Your task to perform on an android device: open app "Instagram" (install if not already installed), go to login, and select forgot password Image 0: 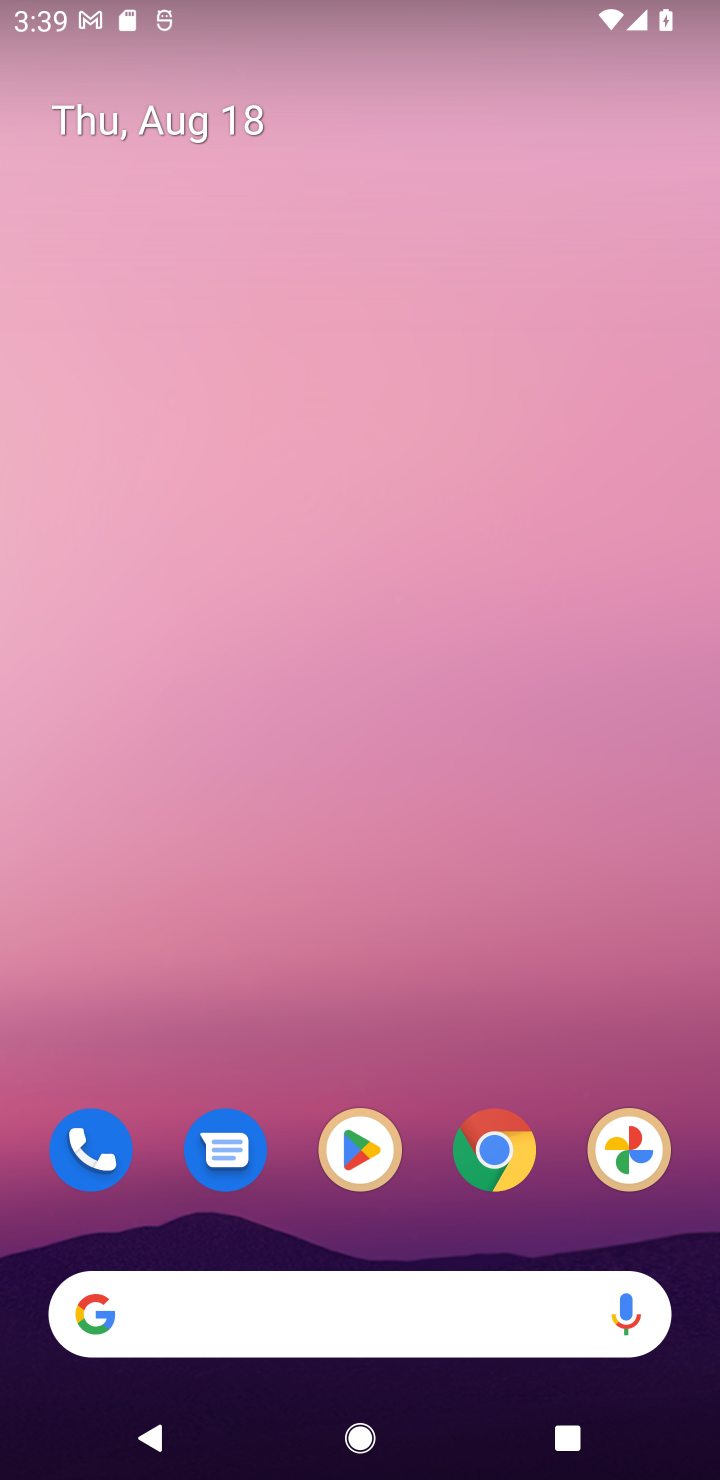
Step 0: click (362, 1145)
Your task to perform on an android device: open app "Instagram" (install if not already installed), go to login, and select forgot password Image 1: 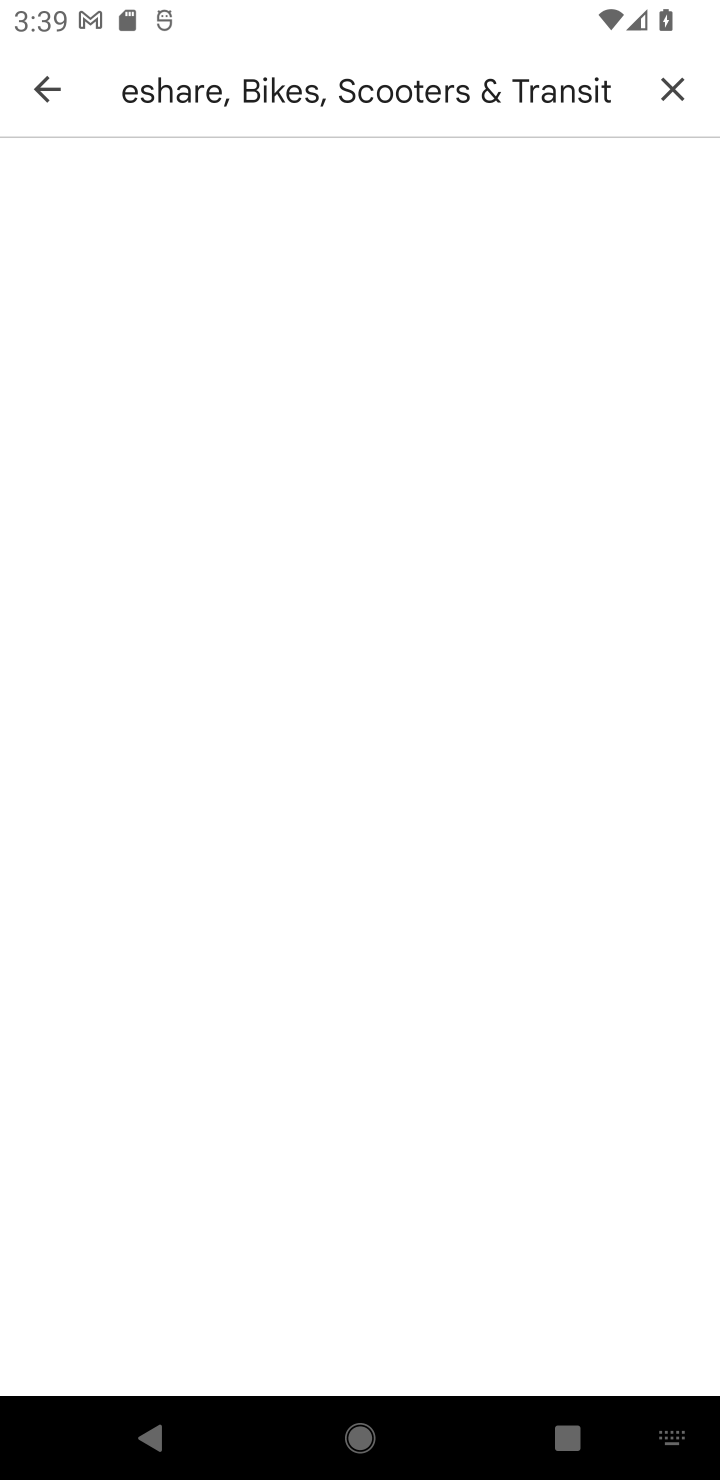
Step 1: click (670, 85)
Your task to perform on an android device: open app "Instagram" (install if not already installed), go to login, and select forgot password Image 2: 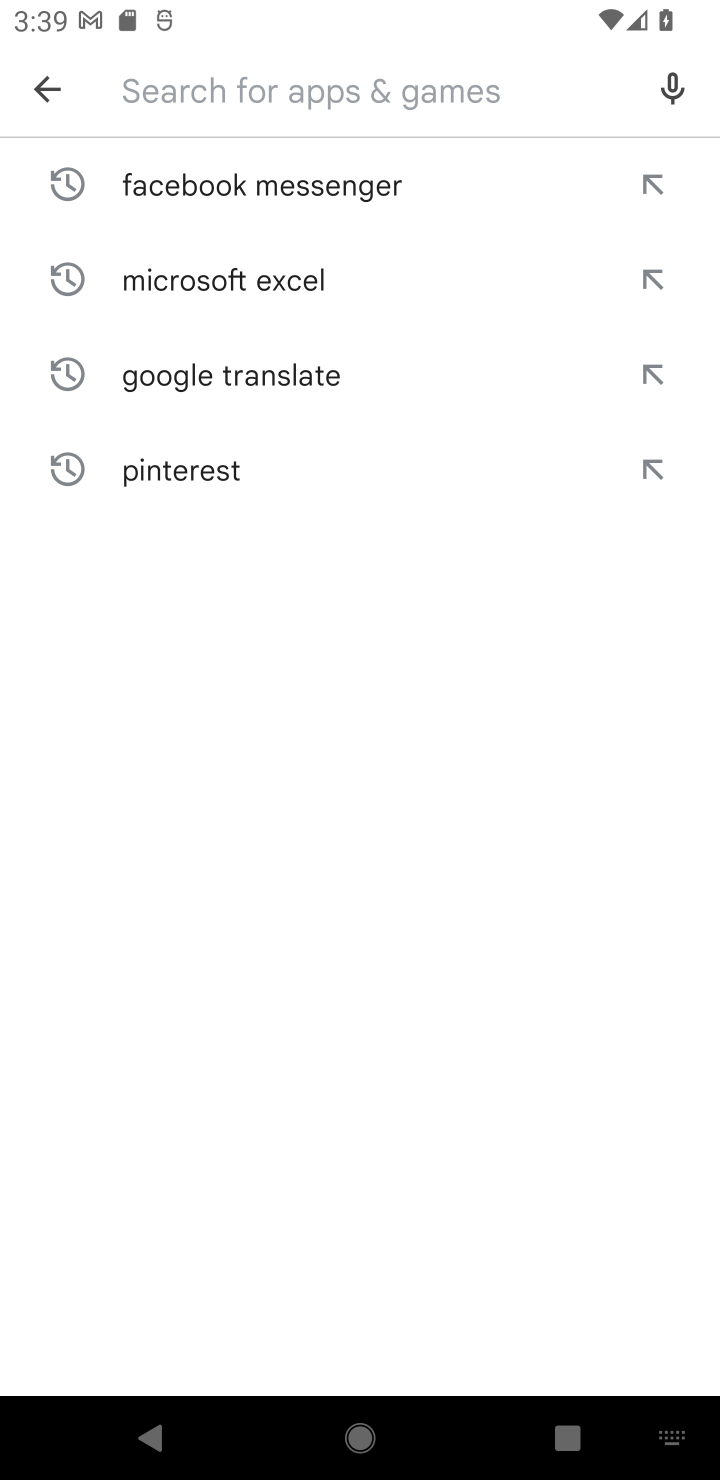
Step 2: type "Instagram"
Your task to perform on an android device: open app "Instagram" (install if not already installed), go to login, and select forgot password Image 3: 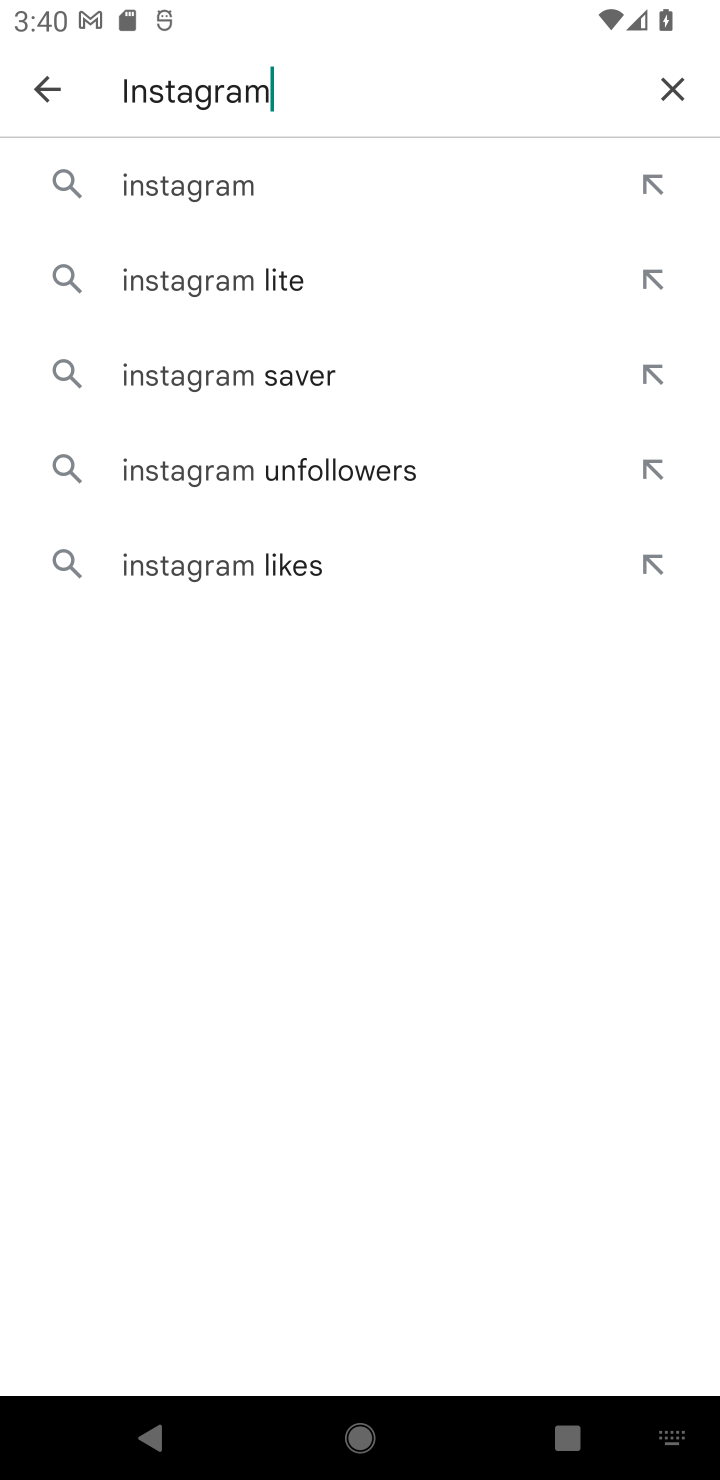
Step 3: click (198, 176)
Your task to perform on an android device: open app "Instagram" (install if not already installed), go to login, and select forgot password Image 4: 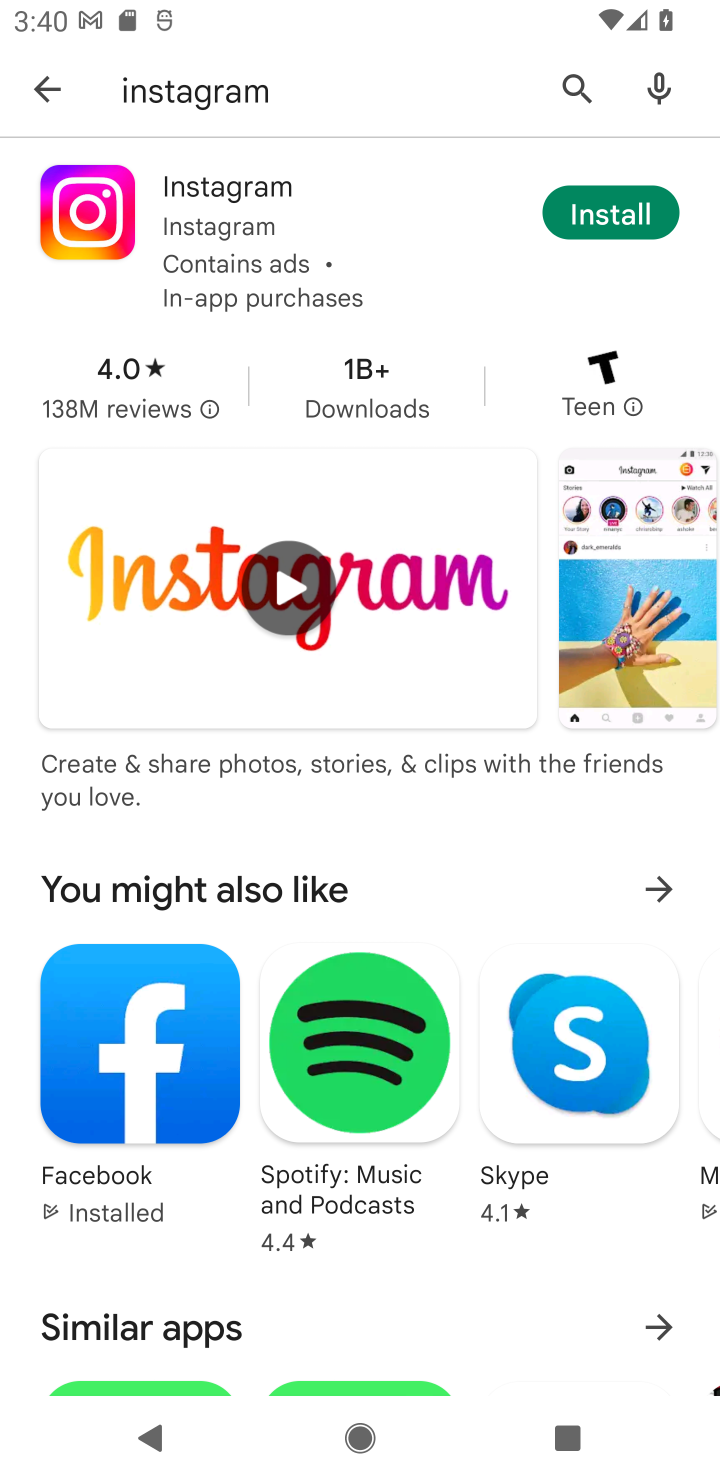
Step 4: click (614, 211)
Your task to perform on an android device: open app "Instagram" (install if not already installed), go to login, and select forgot password Image 5: 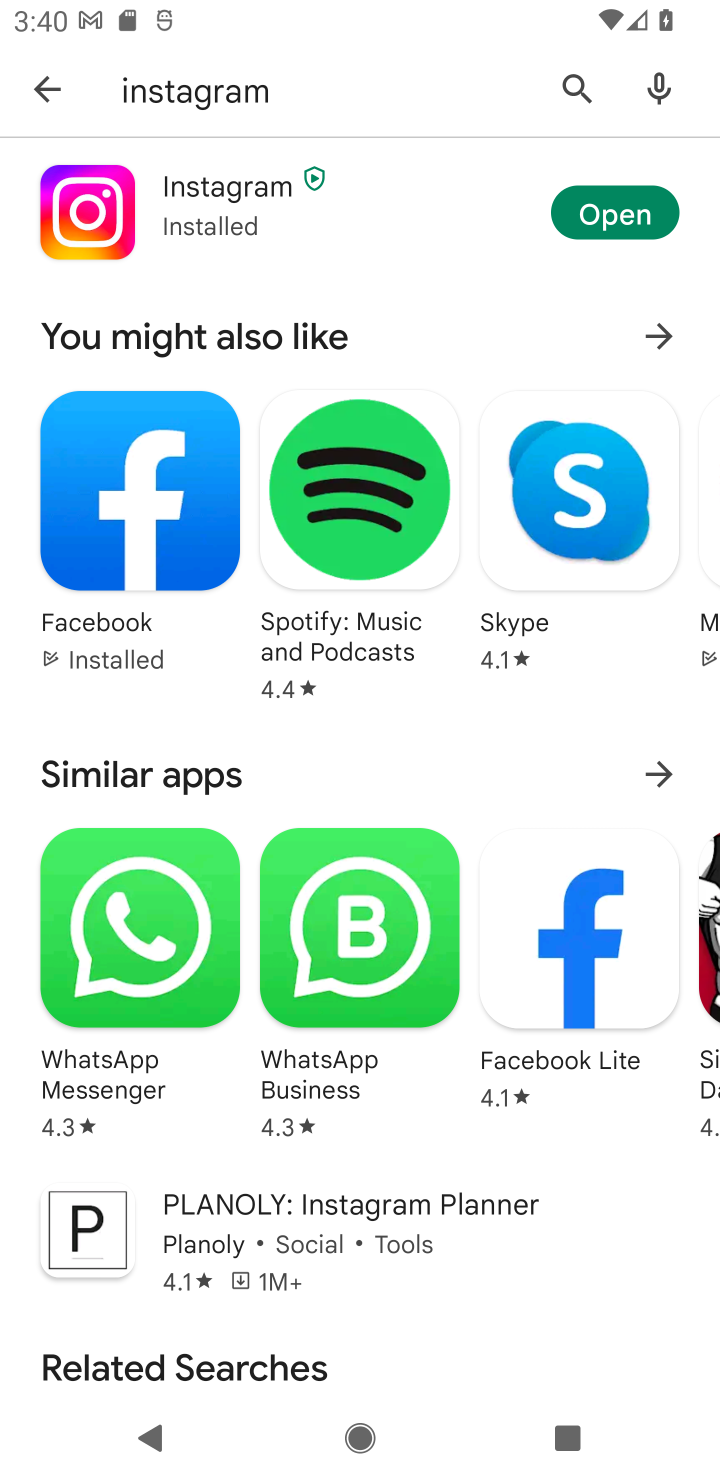
Step 5: click (597, 205)
Your task to perform on an android device: open app "Instagram" (install if not already installed), go to login, and select forgot password Image 6: 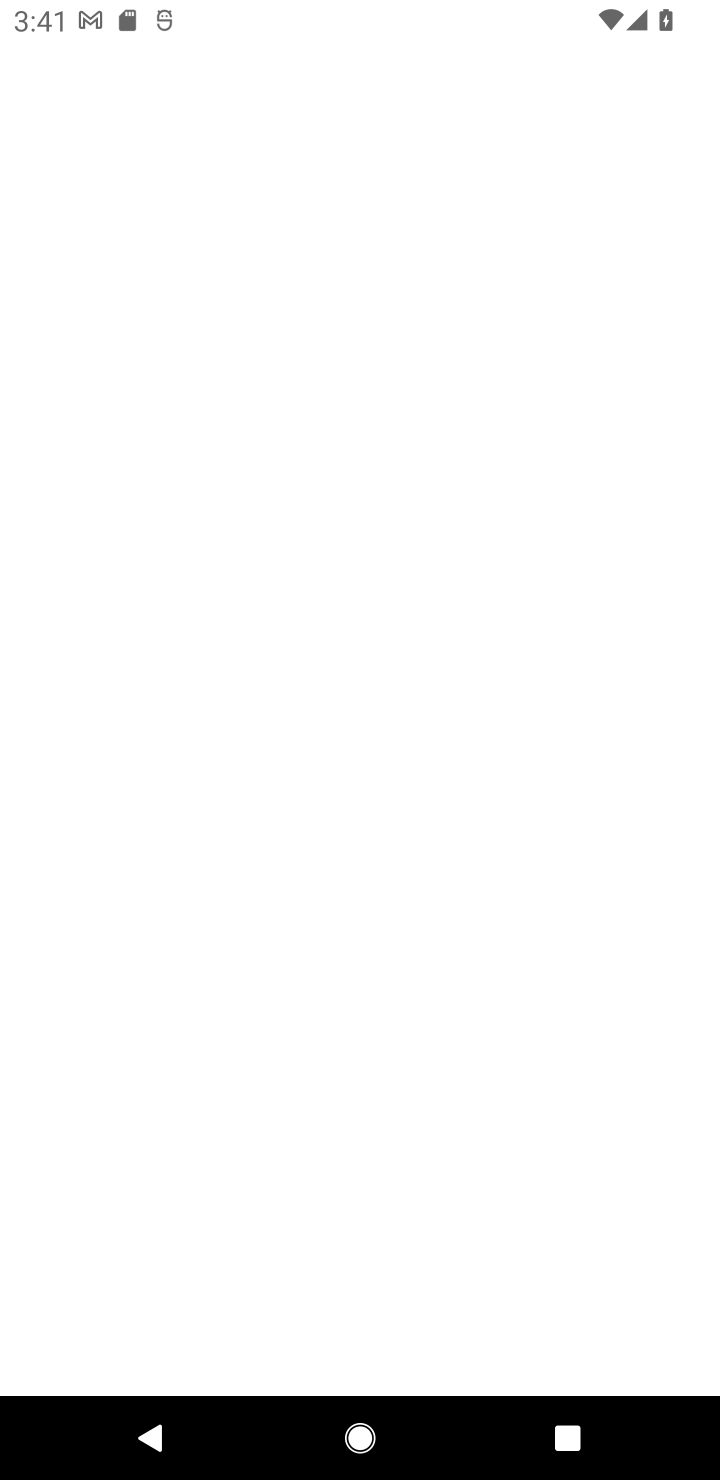
Step 6: drag from (252, 464) to (315, 1016)
Your task to perform on an android device: open app "Instagram" (install if not already installed), go to login, and select forgot password Image 7: 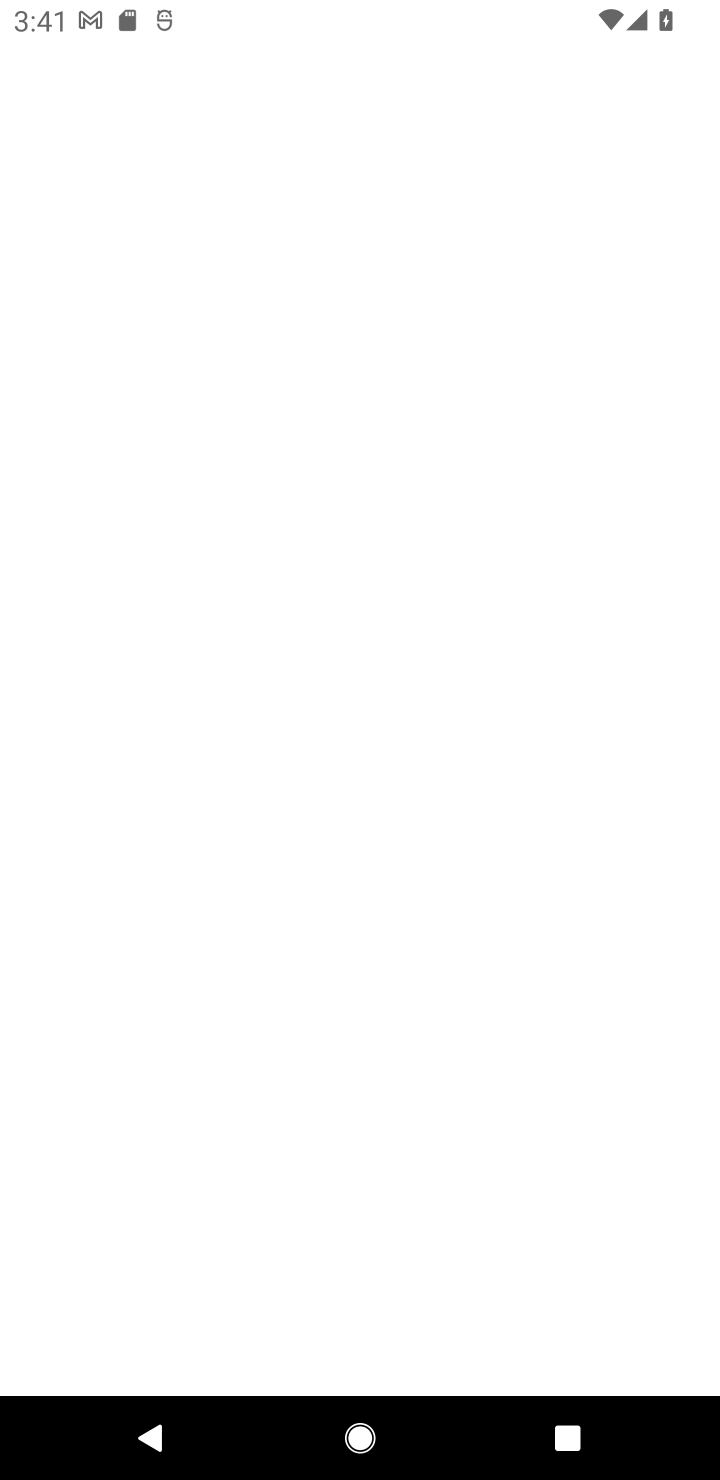
Step 7: drag from (432, 327) to (453, 838)
Your task to perform on an android device: open app "Instagram" (install if not already installed), go to login, and select forgot password Image 8: 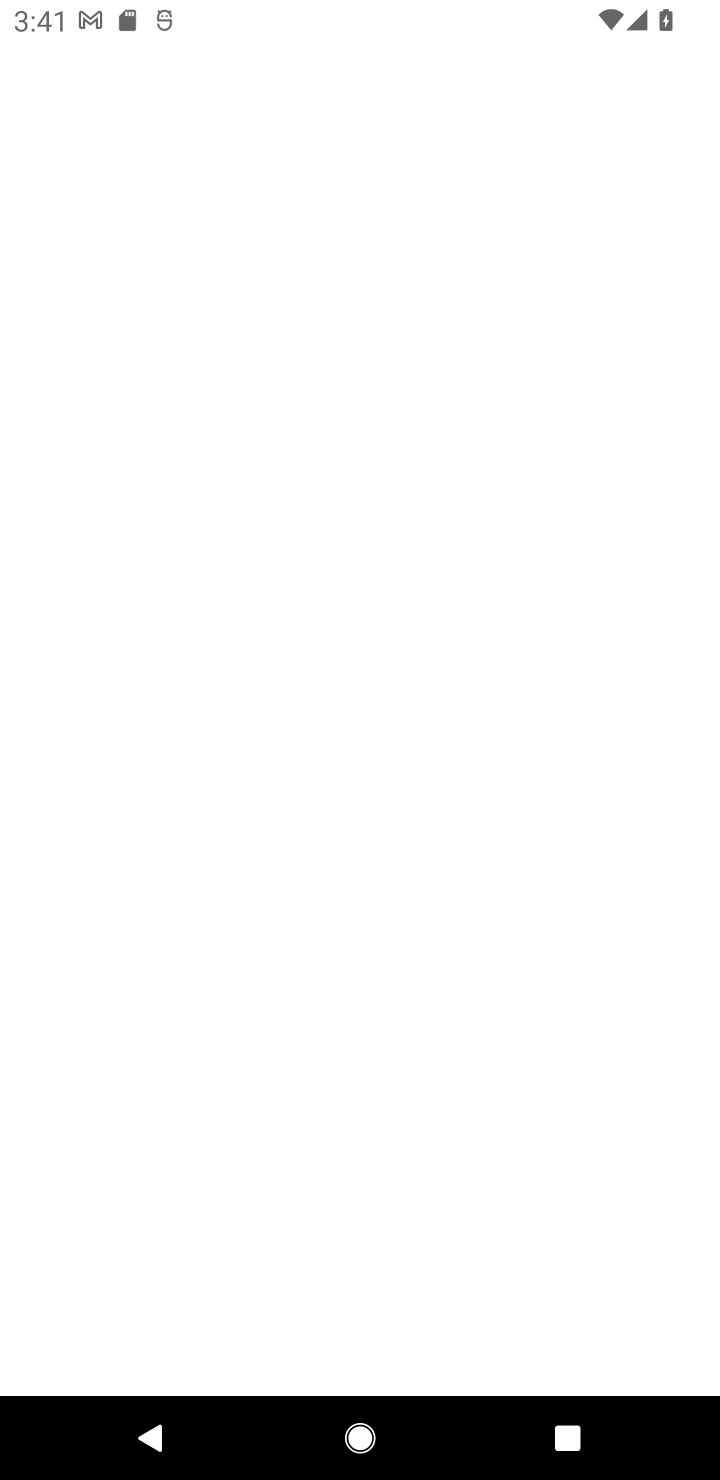
Step 8: press back button
Your task to perform on an android device: open app "Instagram" (install if not already installed), go to login, and select forgot password Image 9: 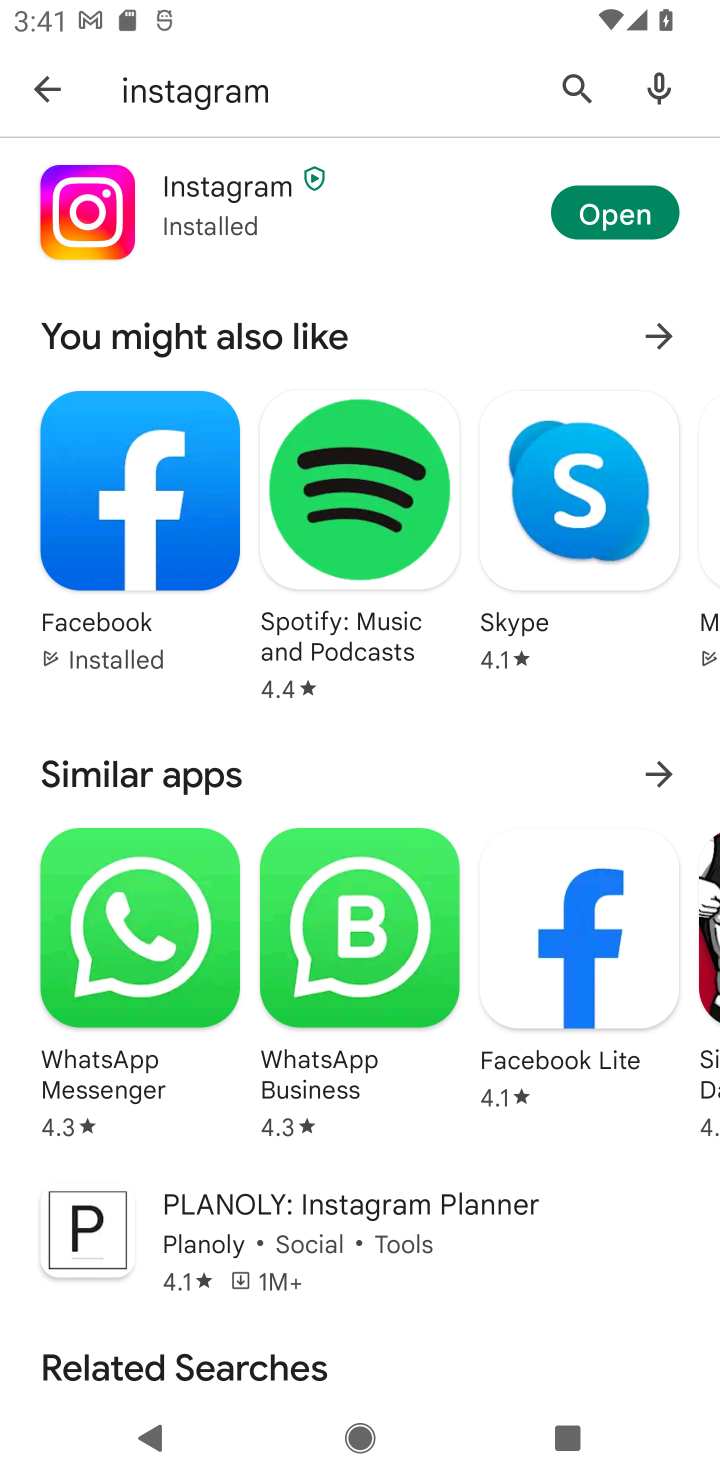
Step 9: click (603, 212)
Your task to perform on an android device: open app "Instagram" (install if not already installed), go to login, and select forgot password Image 10: 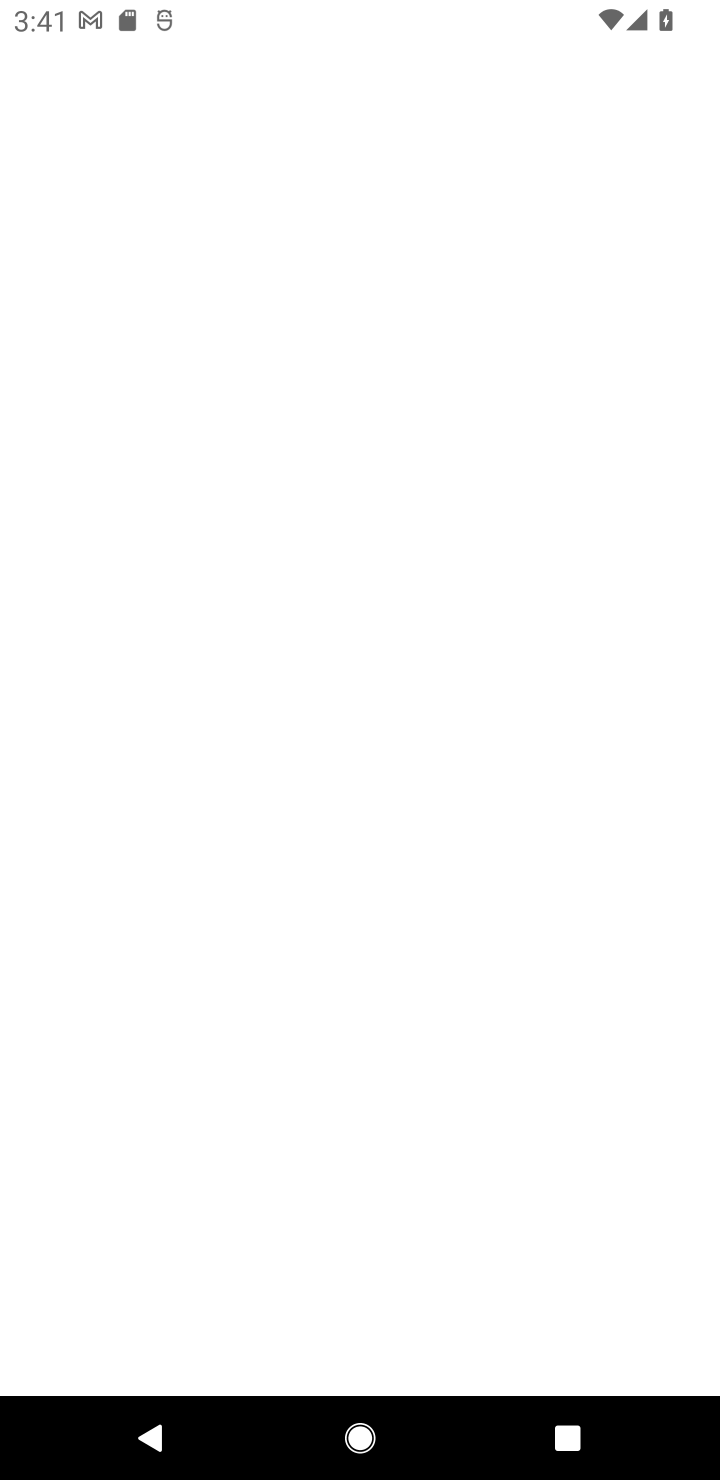
Step 10: task complete